Your task to perform on an android device: move an email to a new category in the gmail app Image 0: 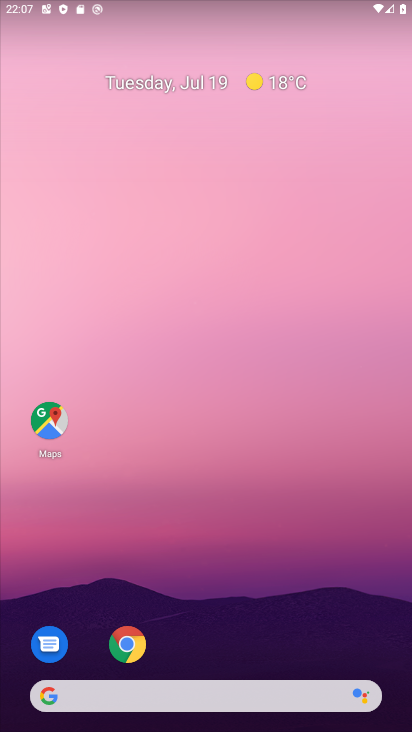
Step 0: drag from (270, 724) to (259, 192)
Your task to perform on an android device: move an email to a new category in the gmail app Image 1: 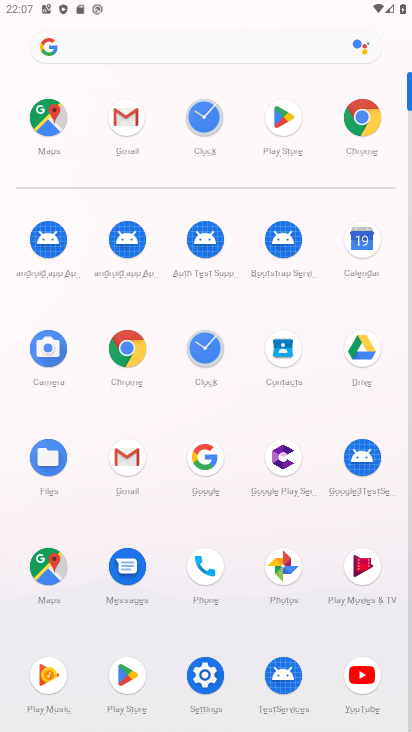
Step 1: click (126, 460)
Your task to perform on an android device: move an email to a new category in the gmail app Image 2: 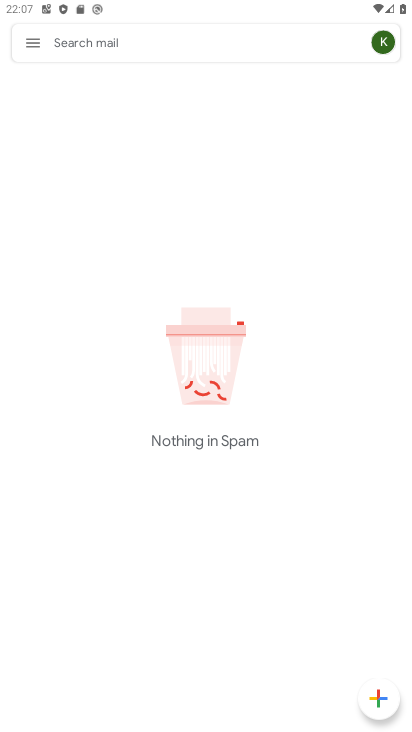
Step 2: click (32, 36)
Your task to perform on an android device: move an email to a new category in the gmail app Image 3: 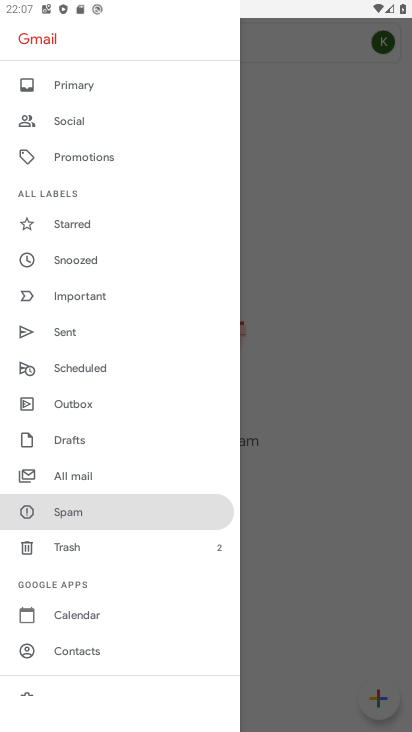
Step 3: click (77, 88)
Your task to perform on an android device: move an email to a new category in the gmail app Image 4: 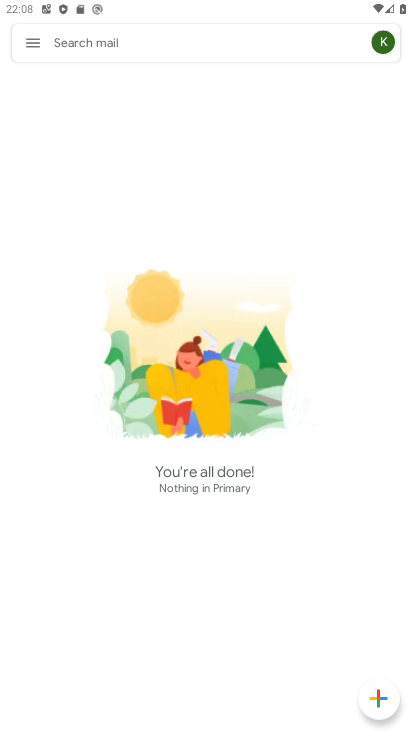
Step 4: task complete